Your task to perform on an android device: turn off smart reply in the gmail app Image 0: 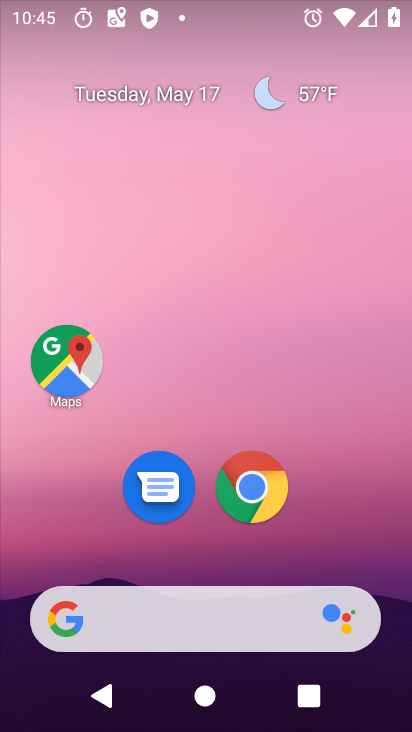
Step 0: drag from (245, 726) to (240, 189)
Your task to perform on an android device: turn off smart reply in the gmail app Image 1: 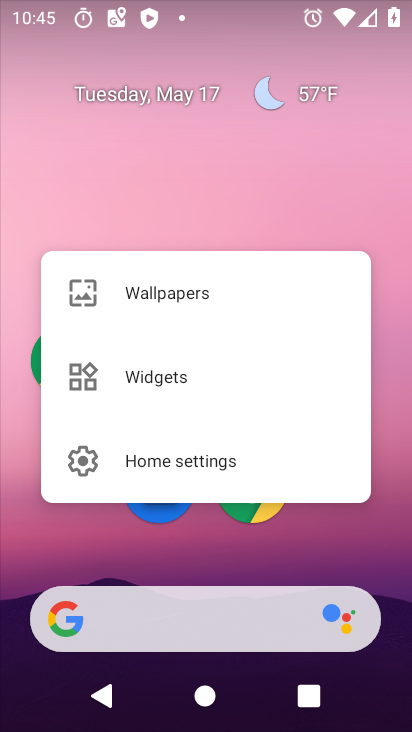
Step 1: click (257, 210)
Your task to perform on an android device: turn off smart reply in the gmail app Image 2: 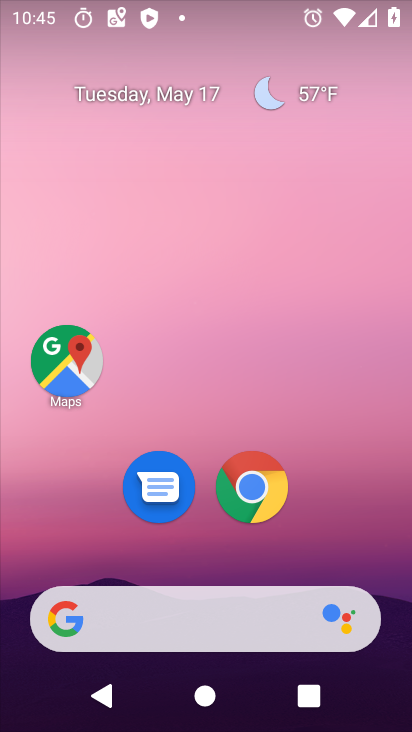
Step 2: drag from (226, 724) to (227, 119)
Your task to perform on an android device: turn off smart reply in the gmail app Image 3: 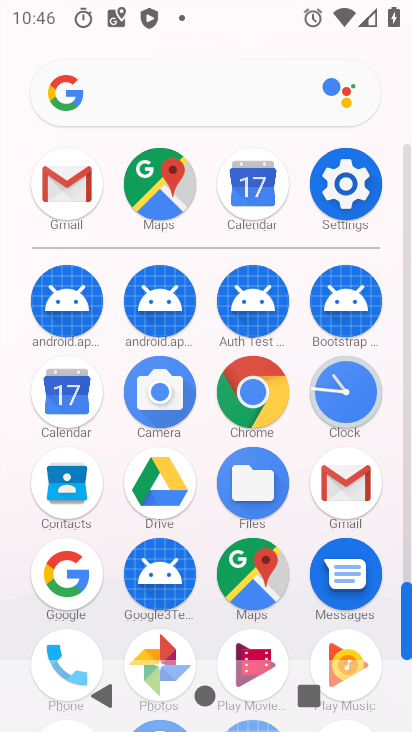
Step 3: click (348, 496)
Your task to perform on an android device: turn off smart reply in the gmail app Image 4: 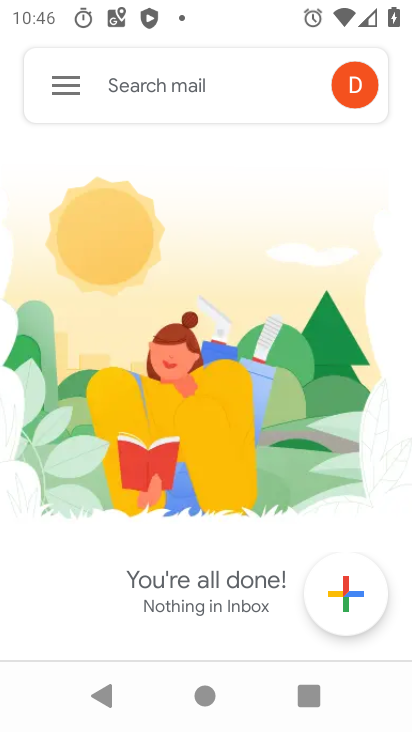
Step 4: click (50, 86)
Your task to perform on an android device: turn off smart reply in the gmail app Image 5: 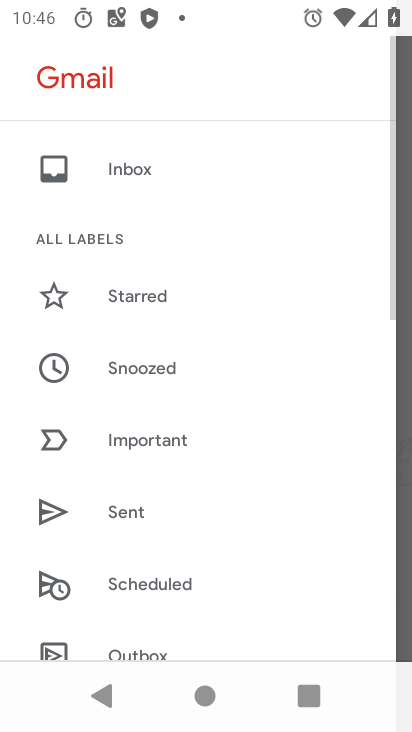
Step 5: drag from (118, 624) to (136, 279)
Your task to perform on an android device: turn off smart reply in the gmail app Image 6: 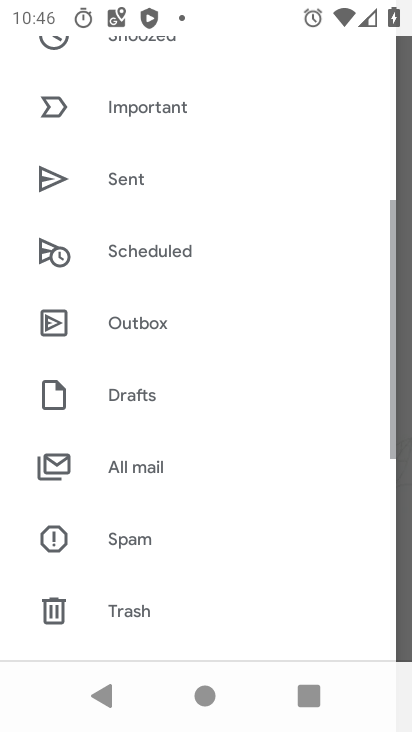
Step 6: drag from (157, 642) to (166, 243)
Your task to perform on an android device: turn off smart reply in the gmail app Image 7: 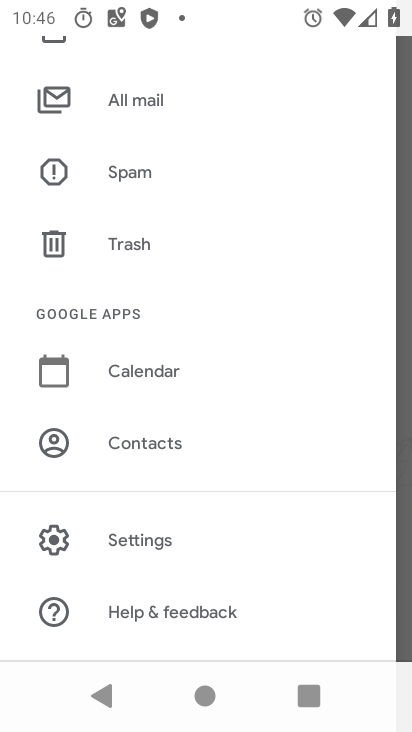
Step 7: click (139, 536)
Your task to perform on an android device: turn off smart reply in the gmail app Image 8: 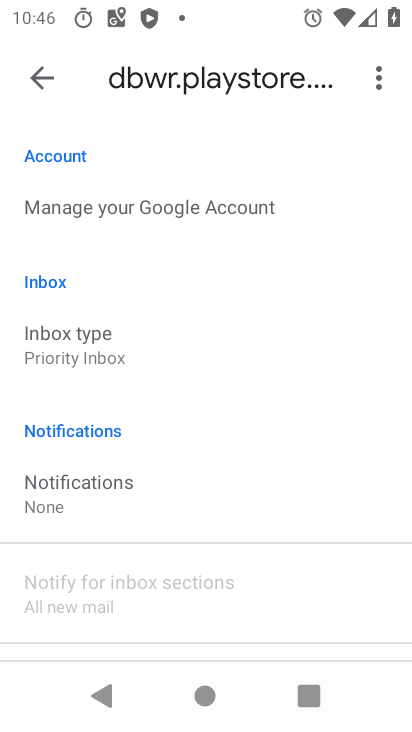
Step 8: drag from (108, 584) to (155, 206)
Your task to perform on an android device: turn off smart reply in the gmail app Image 9: 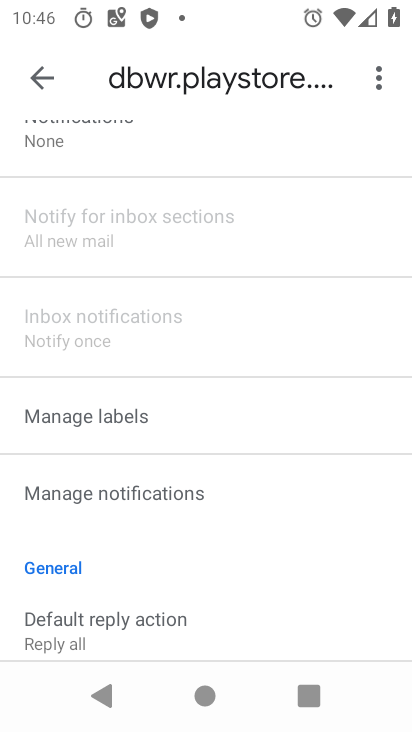
Step 9: drag from (154, 608) to (159, 234)
Your task to perform on an android device: turn off smart reply in the gmail app Image 10: 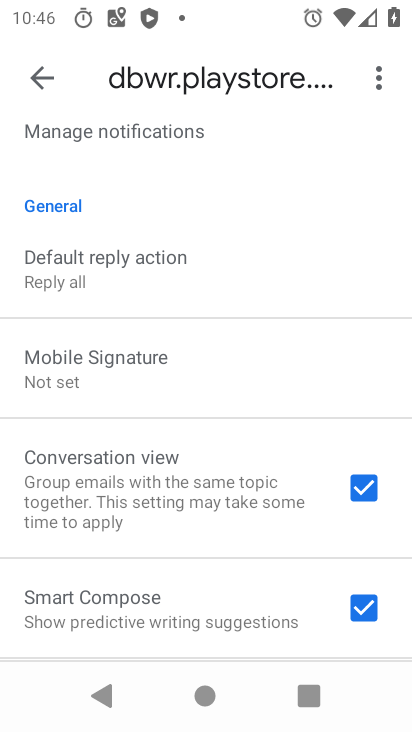
Step 10: drag from (162, 586) to (162, 213)
Your task to perform on an android device: turn off smart reply in the gmail app Image 11: 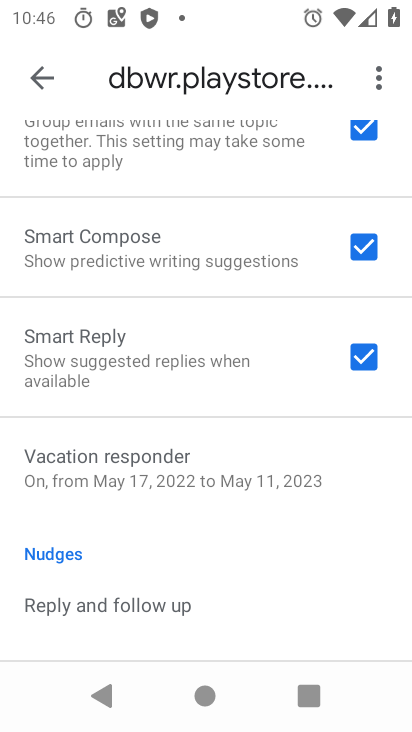
Step 11: click (367, 349)
Your task to perform on an android device: turn off smart reply in the gmail app Image 12: 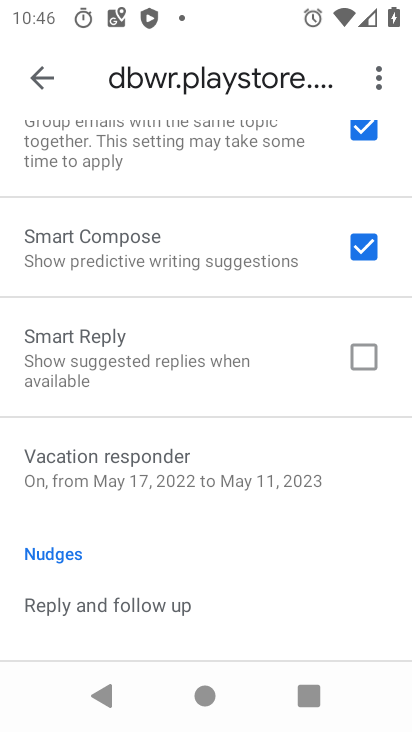
Step 12: task complete